Your task to perform on an android device: turn on notifications settings in the gmail app Image 0: 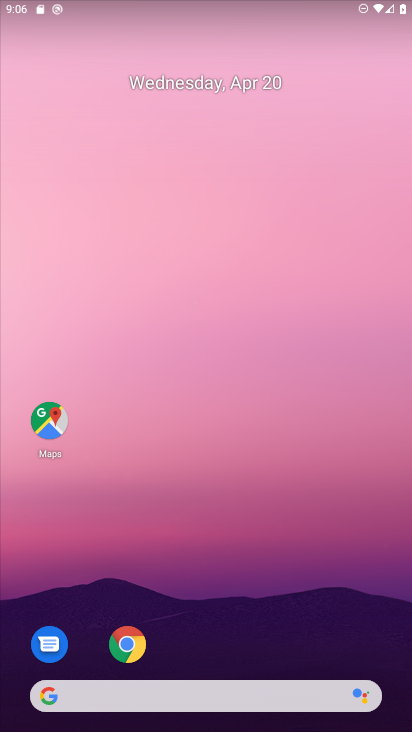
Step 0: drag from (350, 617) to (224, 72)
Your task to perform on an android device: turn on notifications settings in the gmail app Image 1: 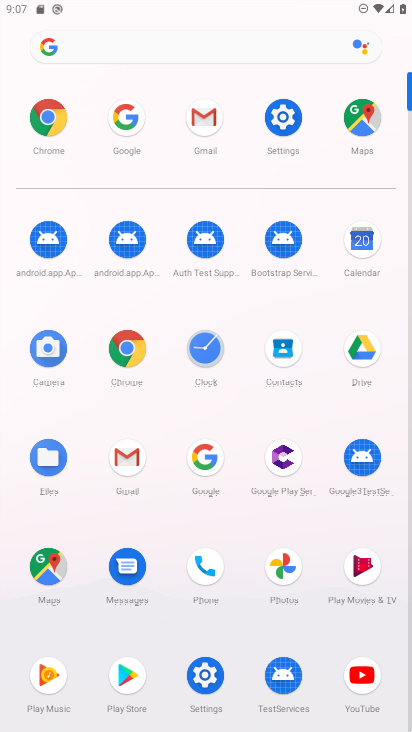
Step 1: click (125, 460)
Your task to perform on an android device: turn on notifications settings in the gmail app Image 2: 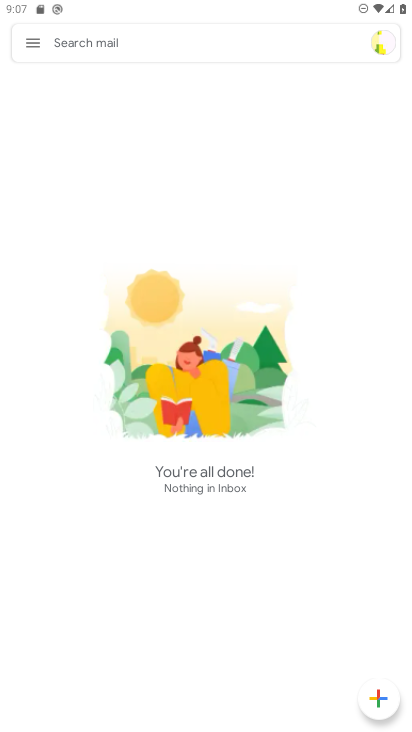
Step 2: click (22, 38)
Your task to perform on an android device: turn on notifications settings in the gmail app Image 3: 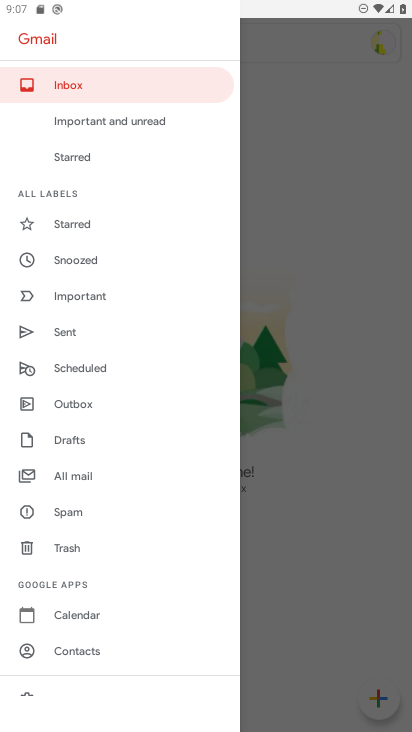
Step 3: drag from (94, 644) to (145, 239)
Your task to perform on an android device: turn on notifications settings in the gmail app Image 4: 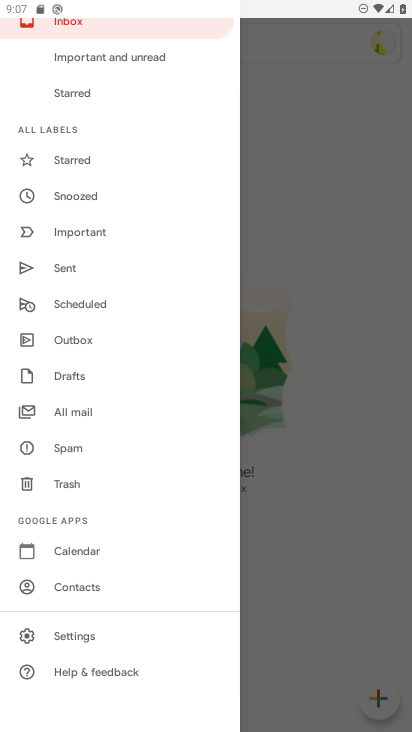
Step 4: click (99, 634)
Your task to perform on an android device: turn on notifications settings in the gmail app Image 5: 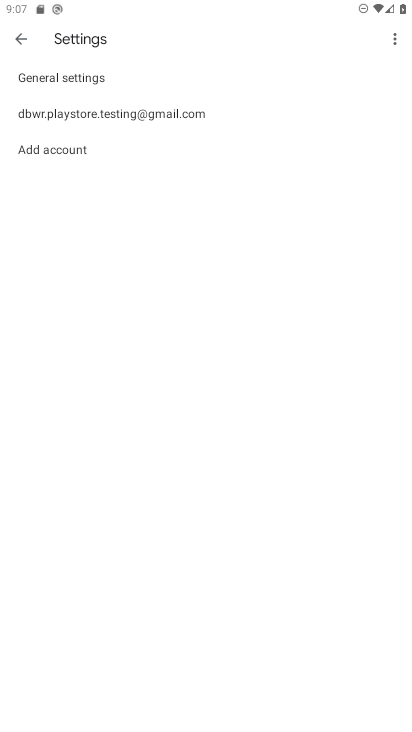
Step 5: click (202, 113)
Your task to perform on an android device: turn on notifications settings in the gmail app Image 6: 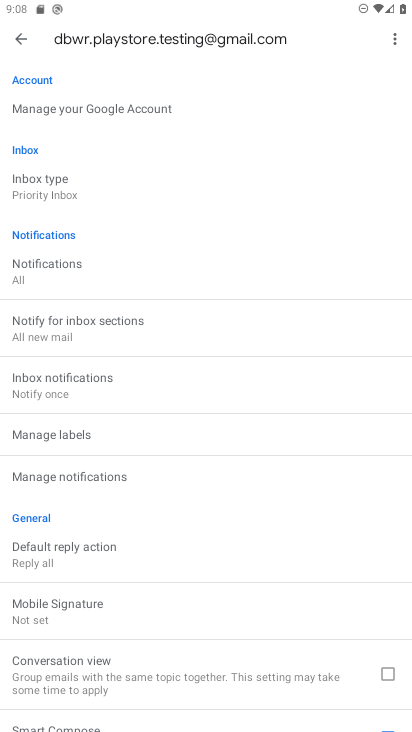
Step 6: click (102, 272)
Your task to perform on an android device: turn on notifications settings in the gmail app Image 7: 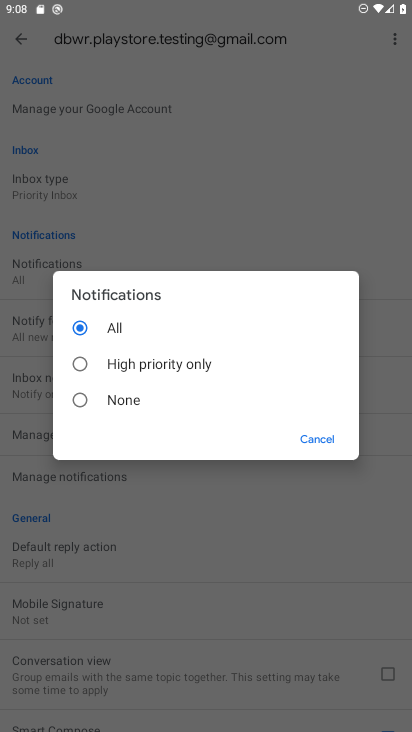
Step 7: task complete